Your task to perform on an android device: toggle notifications settings in the gmail app Image 0: 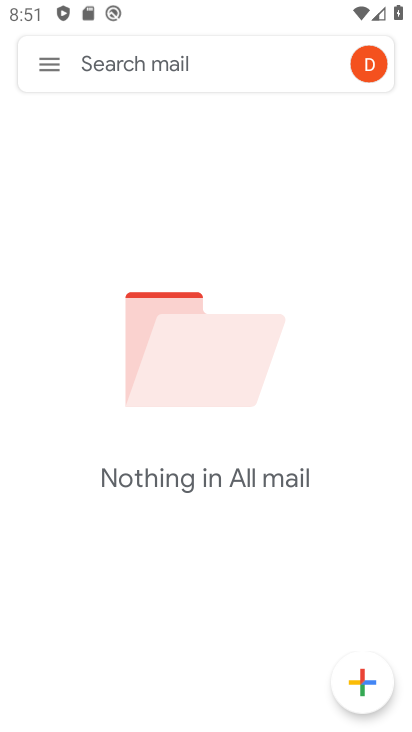
Step 0: press home button
Your task to perform on an android device: toggle notifications settings in the gmail app Image 1: 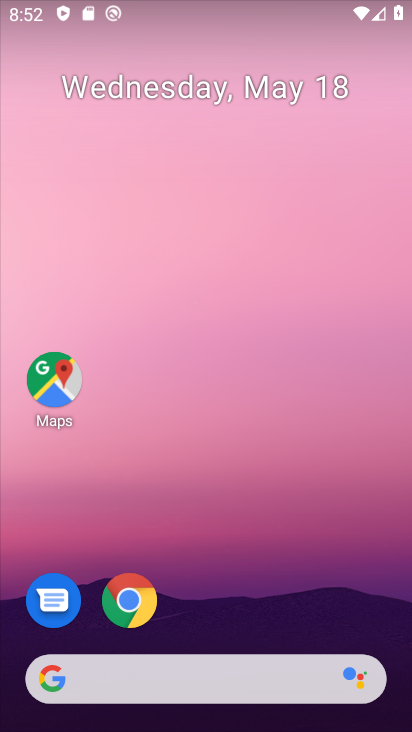
Step 1: drag from (67, 536) to (298, 139)
Your task to perform on an android device: toggle notifications settings in the gmail app Image 2: 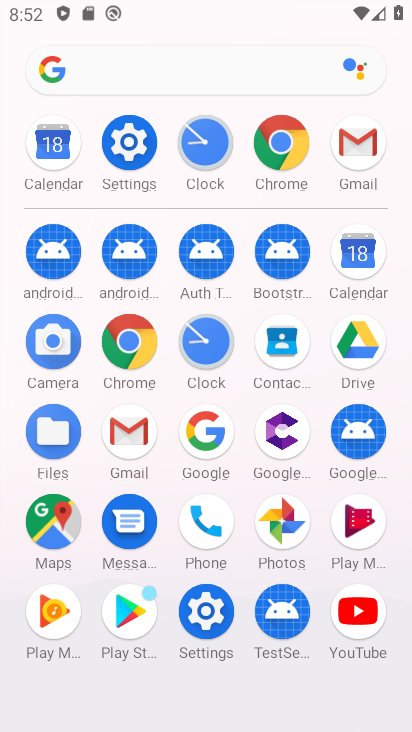
Step 2: click (150, 132)
Your task to perform on an android device: toggle notifications settings in the gmail app Image 3: 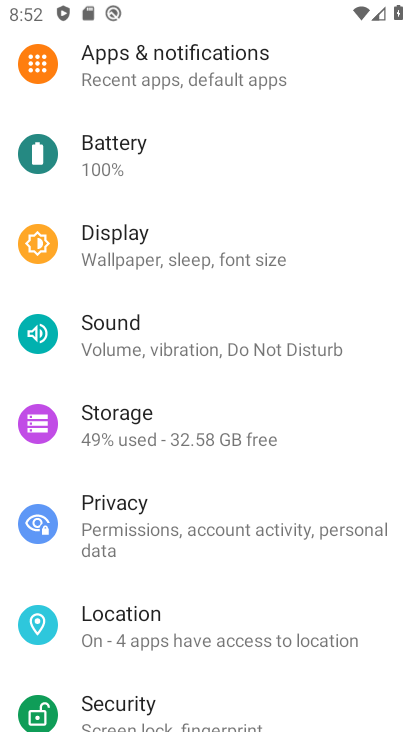
Step 3: click (183, 73)
Your task to perform on an android device: toggle notifications settings in the gmail app Image 4: 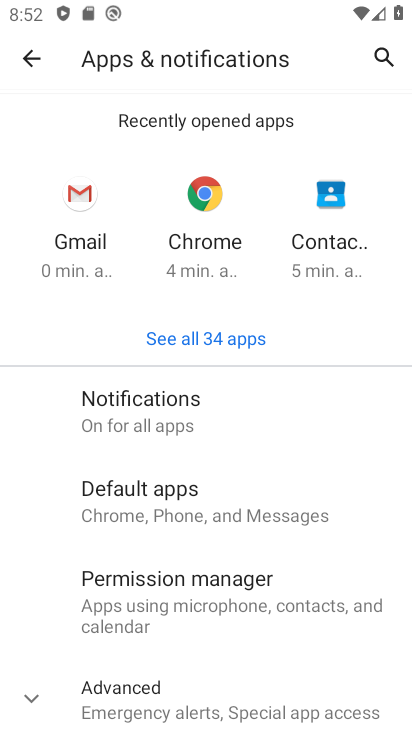
Step 4: click (79, 196)
Your task to perform on an android device: toggle notifications settings in the gmail app Image 5: 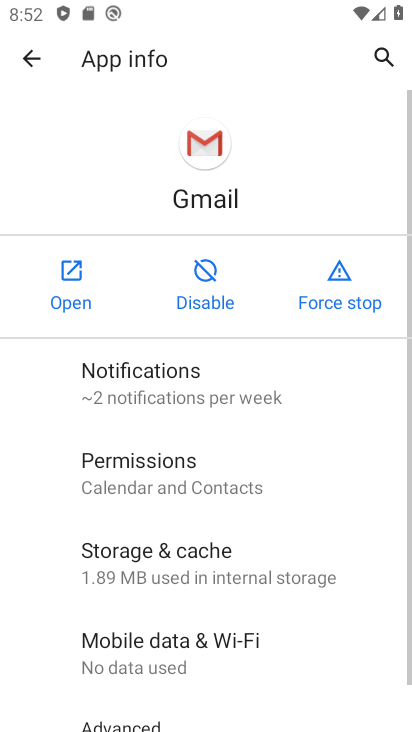
Step 5: click (173, 374)
Your task to perform on an android device: toggle notifications settings in the gmail app Image 6: 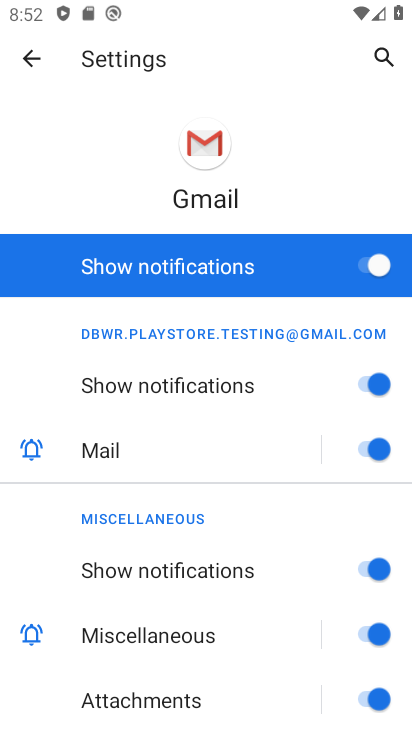
Step 6: click (379, 274)
Your task to perform on an android device: toggle notifications settings in the gmail app Image 7: 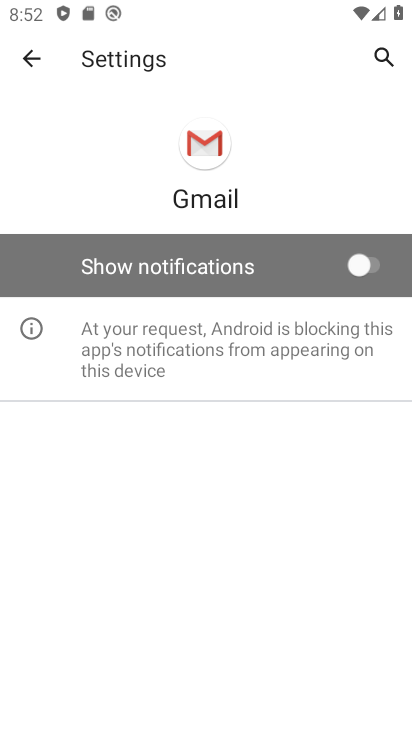
Step 7: task complete